Your task to perform on an android device: move an email to a new category in the gmail app Image 0: 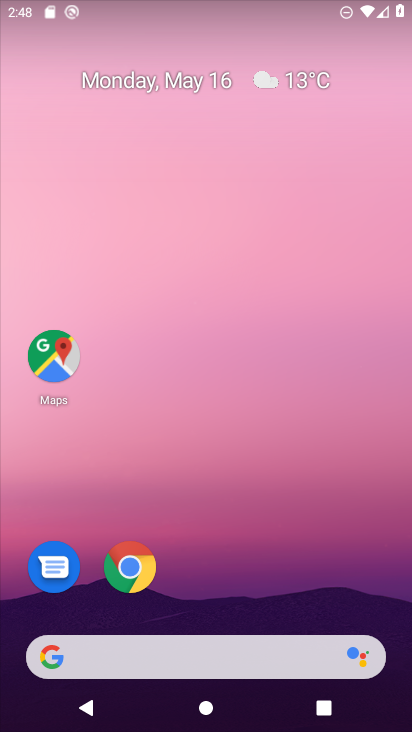
Step 0: drag from (305, 609) to (245, 219)
Your task to perform on an android device: move an email to a new category in the gmail app Image 1: 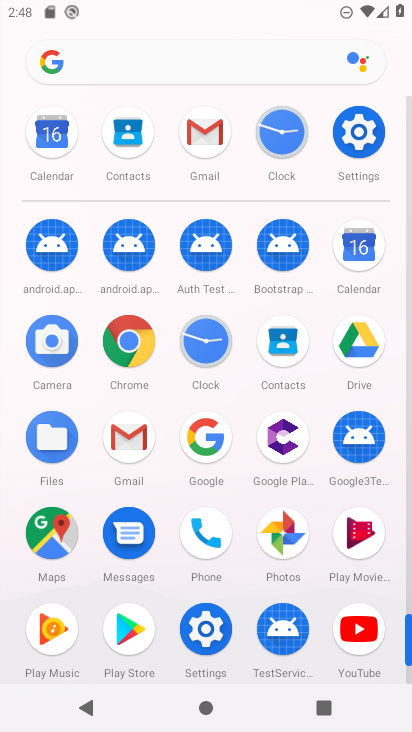
Step 1: click (137, 435)
Your task to perform on an android device: move an email to a new category in the gmail app Image 2: 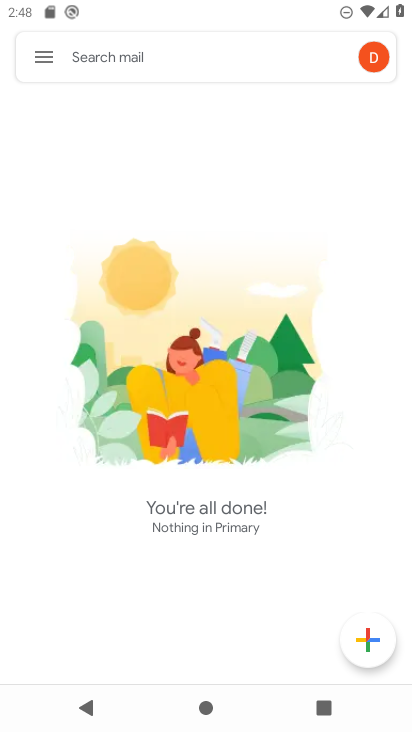
Step 2: click (49, 51)
Your task to perform on an android device: move an email to a new category in the gmail app Image 3: 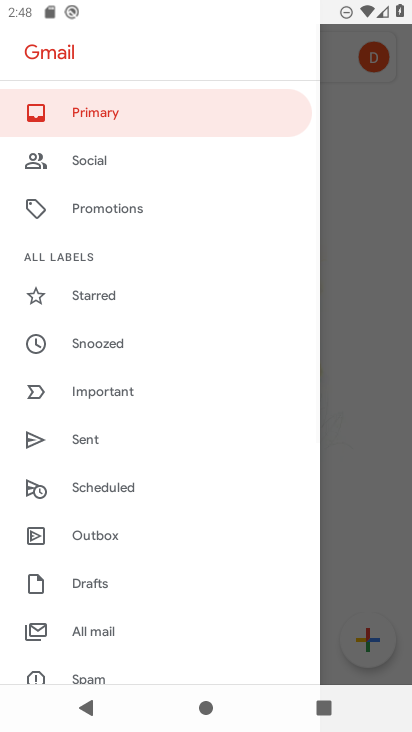
Step 3: click (127, 626)
Your task to perform on an android device: move an email to a new category in the gmail app Image 4: 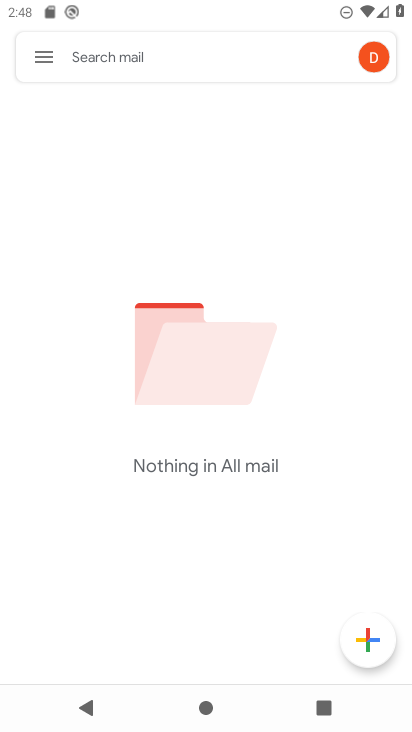
Step 4: task complete